Your task to perform on an android device: Open ESPN.com Image 0: 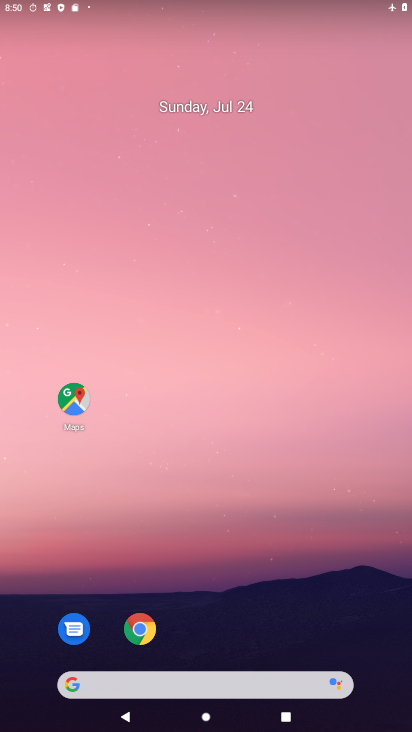
Step 0: drag from (192, 669) to (241, 145)
Your task to perform on an android device: Open ESPN.com Image 1: 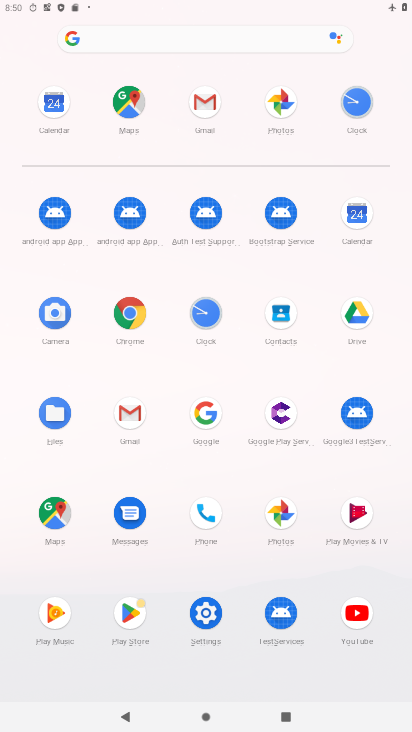
Step 1: click (133, 312)
Your task to perform on an android device: Open ESPN.com Image 2: 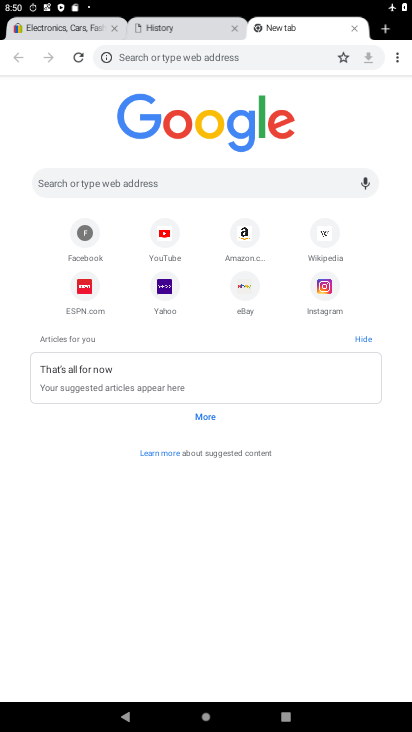
Step 2: click (78, 295)
Your task to perform on an android device: Open ESPN.com Image 3: 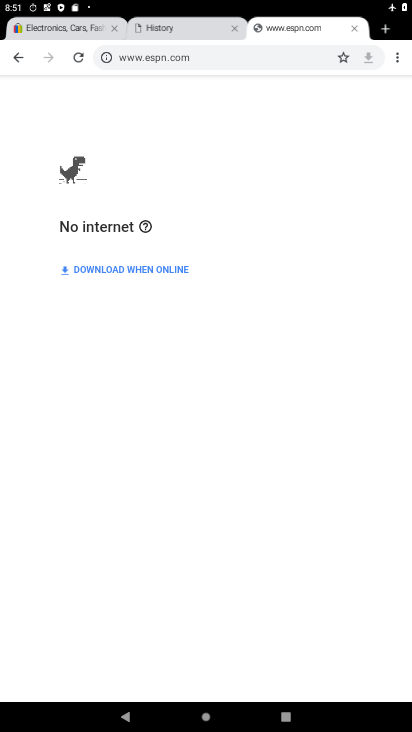
Step 3: task complete